Your task to perform on an android device: open app "Airtel Thanks" (install if not already installed), go to login, and select forgot password Image 0: 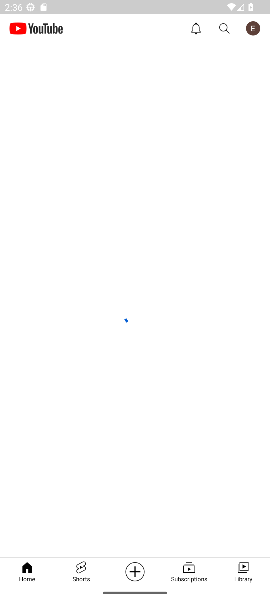
Step 0: press home button
Your task to perform on an android device: open app "Airtel Thanks" (install if not already installed), go to login, and select forgot password Image 1: 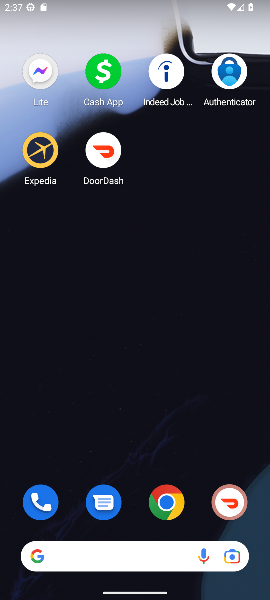
Step 1: drag from (129, 529) to (112, 190)
Your task to perform on an android device: open app "Airtel Thanks" (install if not already installed), go to login, and select forgot password Image 2: 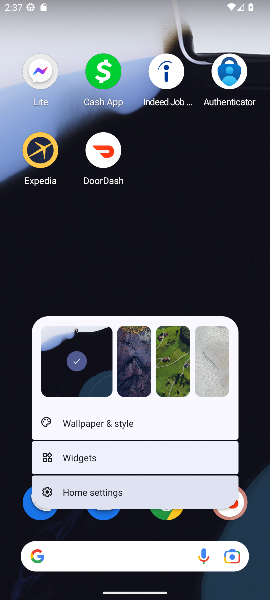
Step 2: click (137, 235)
Your task to perform on an android device: open app "Airtel Thanks" (install if not already installed), go to login, and select forgot password Image 3: 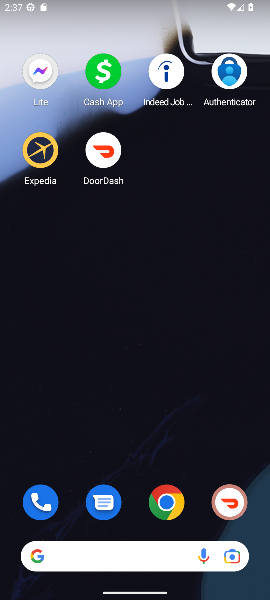
Step 3: drag from (136, 519) to (180, 61)
Your task to perform on an android device: open app "Airtel Thanks" (install if not already installed), go to login, and select forgot password Image 4: 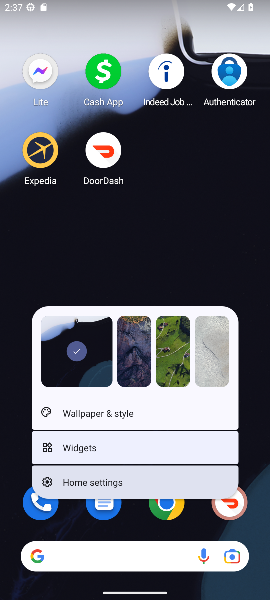
Step 4: click (235, 188)
Your task to perform on an android device: open app "Airtel Thanks" (install if not already installed), go to login, and select forgot password Image 5: 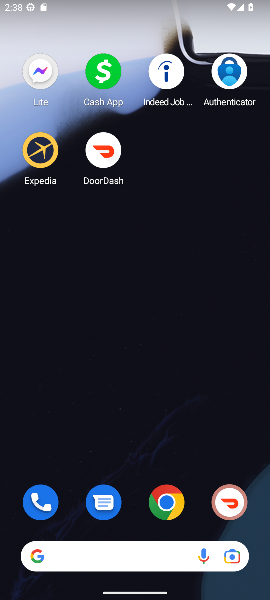
Step 5: drag from (194, 529) to (164, 170)
Your task to perform on an android device: open app "Airtel Thanks" (install if not already installed), go to login, and select forgot password Image 6: 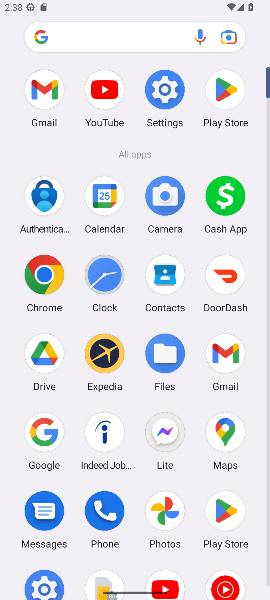
Step 6: click (220, 91)
Your task to perform on an android device: open app "Airtel Thanks" (install if not already installed), go to login, and select forgot password Image 7: 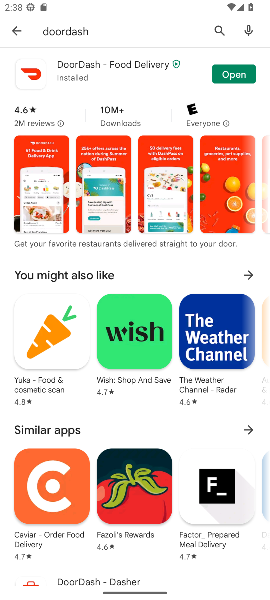
Step 7: click (221, 29)
Your task to perform on an android device: open app "Airtel Thanks" (install if not already installed), go to login, and select forgot password Image 8: 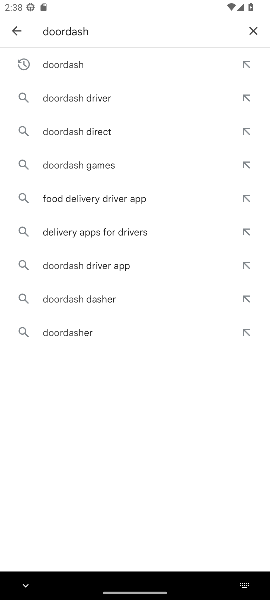
Step 8: click (255, 33)
Your task to perform on an android device: open app "Airtel Thanks" (install if not already installed), go to login, and select forgot password Image 9: 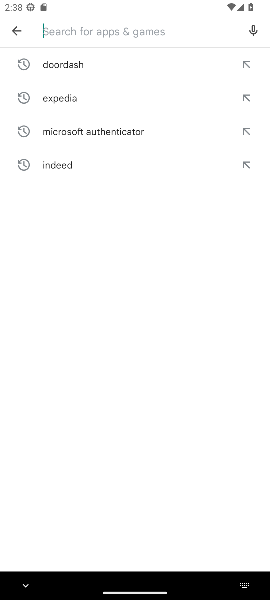
Step 9: type "airtel thanks"
Your task to perform on an android device: open app "Airtel Thanks" (install if not already installed), go to login, and select forgot password Image 10: 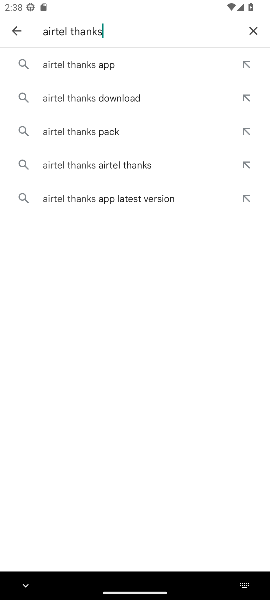
Step 10: click (38, 65)
Your task to perform on an android device: open app "Airtel Thanks" (install if not already installed), go to login, and select forgot password Image 11: 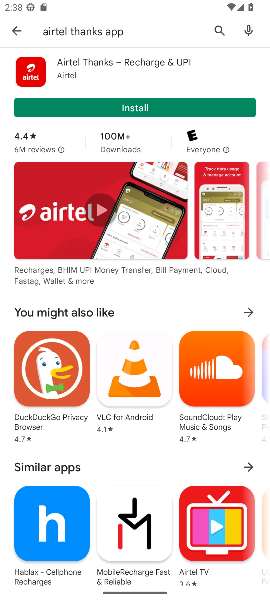
Step 11: click (181, 111)
Your task to perform on an android device: open app "Airtel Thanks" (install if not already installed), go to login, and select forgot password Image 12: 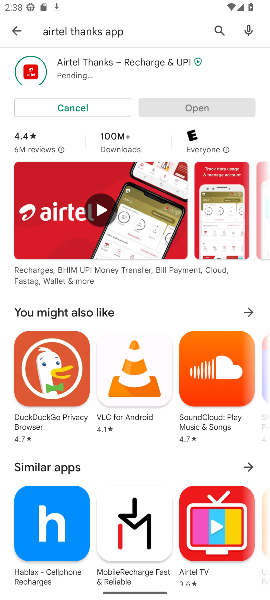
Step 12: task complete